Your task to perform on an android device: Check the weather Image 0: 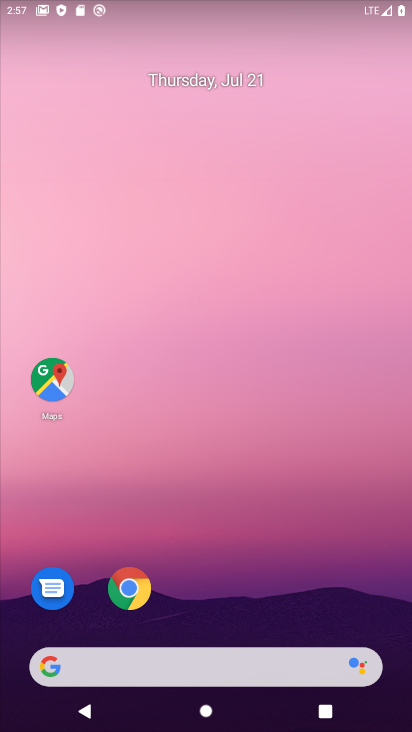
Step 0: click (138, 672)
Your task to perform on an android device: Check the weather Image 1: 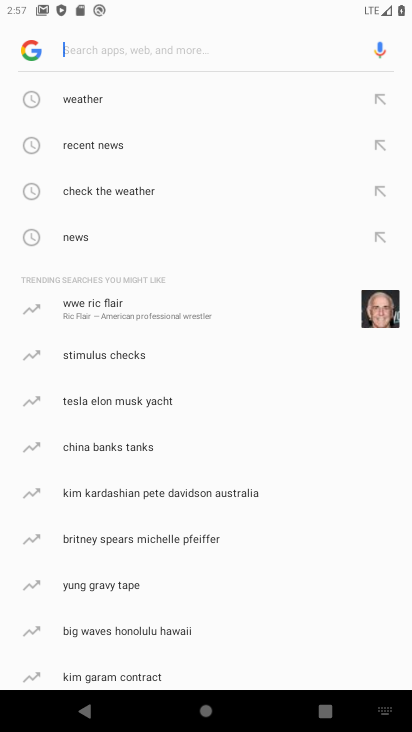
Step 1: type "weather"
Your task to perform on an android device: Check the weather Image 2: 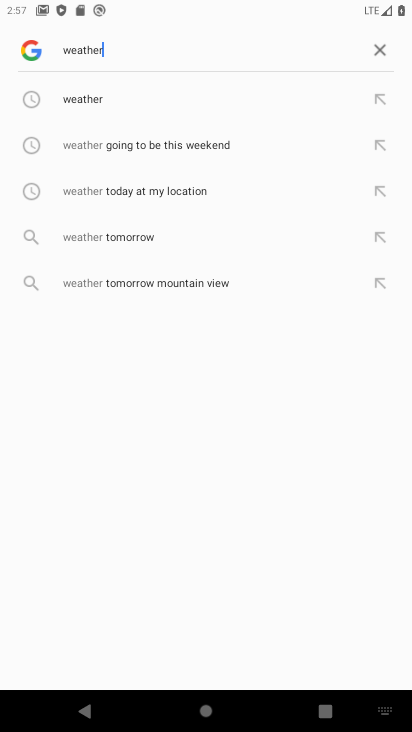
Step 2: click (202, 94)
Your task to perform on an android device: Check the weather Image 3: 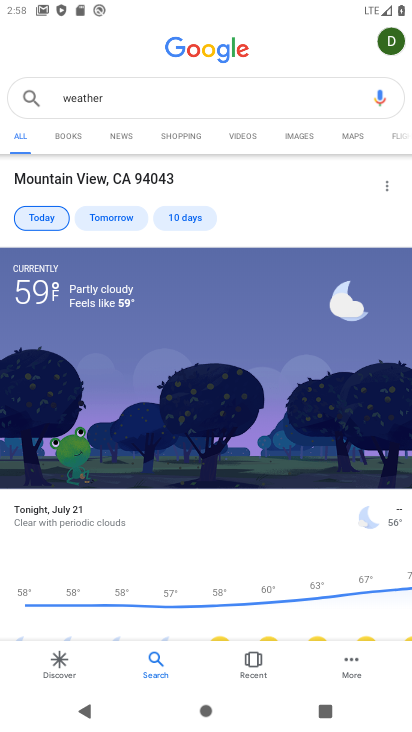
Step 3: task complete